Your task to perform on an android device: delete a single message in the gmail app Image 0: 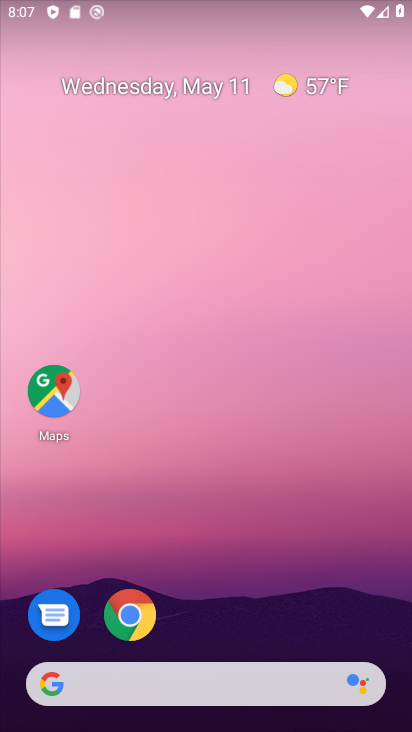
Step 0: drag from (207, 581) to (221, 77)
Your task to perform on an android device: delete a single message in the gmail app Image 1: 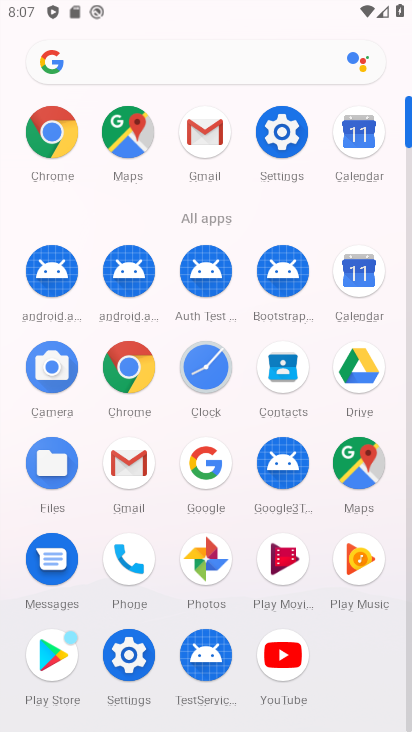
Step 1: click (215, 135)
Your task to perform on an android device: delete a single message in the gmail app Image 2: 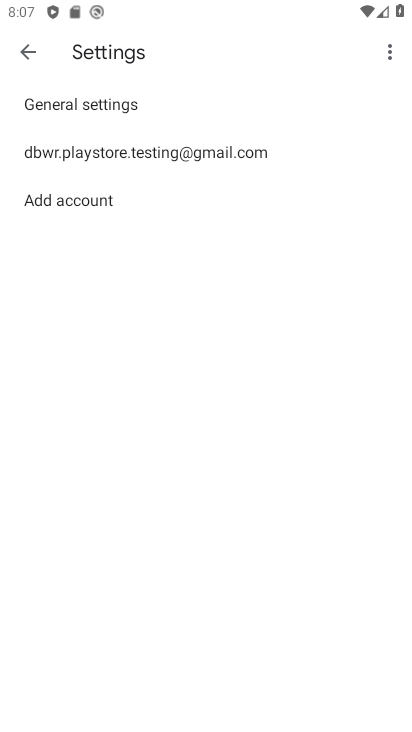
Step 2: press back button
Your task to perform on an android device: delete a single message in the gmail app Image 3: 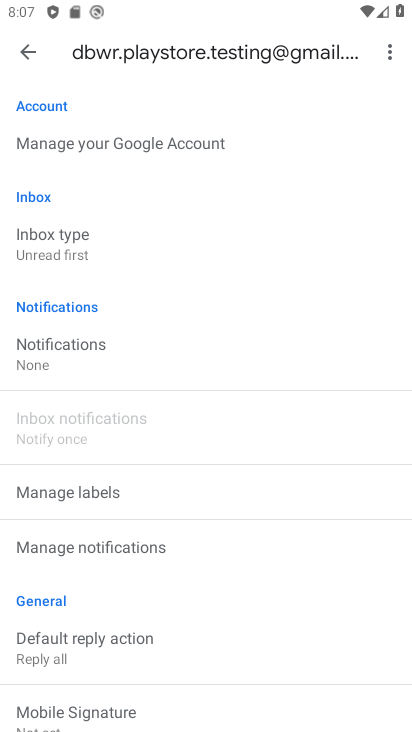
Step 3: press back button
Your task to perform on an android device: delete a single message in the gmail app Image 4: 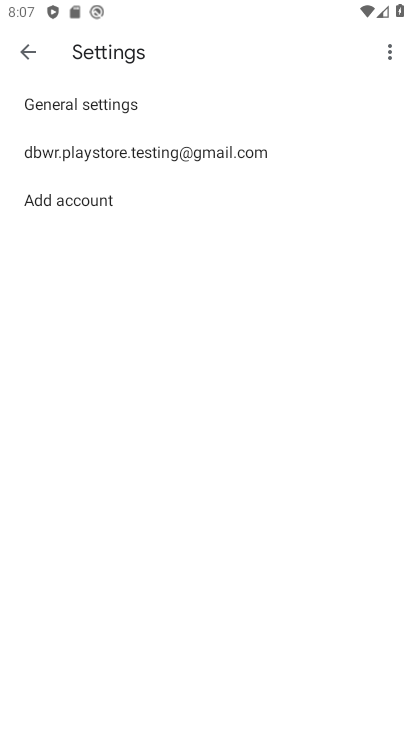
Step 4: press back button
Your task to perform on an android device: delete a single message in the gmail app Image 5: 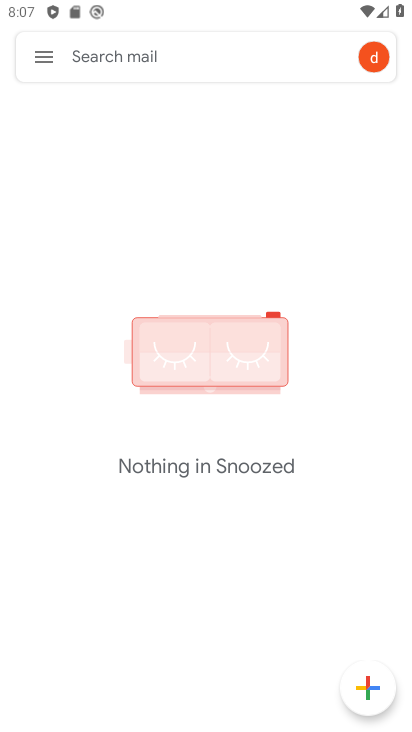
Step 5: click (48, 63)
Your task to perform on an android device: delete a single message in the gmail app Image 6: 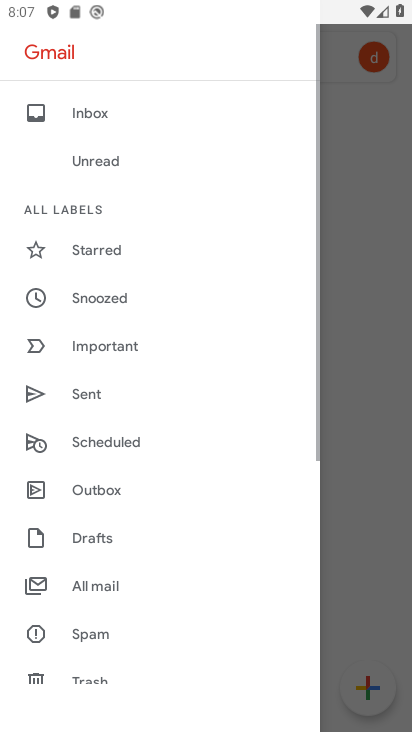
Step 6: click (105, 119)
Your task to perform on an android device: delete a single message in the gmail app Image 7: 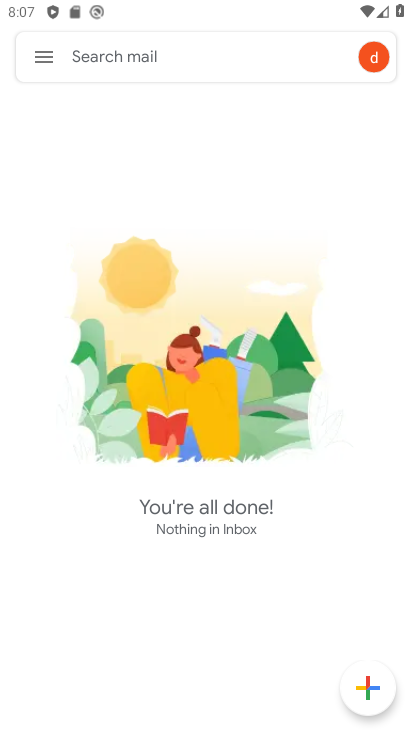
Step 7: task complete